Your task to perform on an android device: turn on sleep mode Image 0: 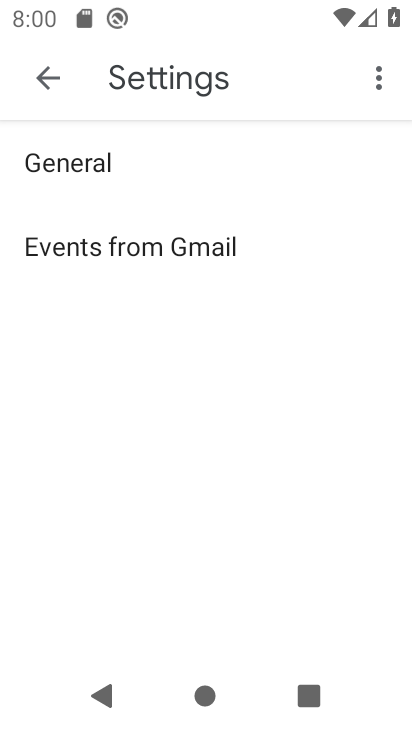
Step 0: press home button
Your task to perform on an android device: turn on sleep mode Image 1: 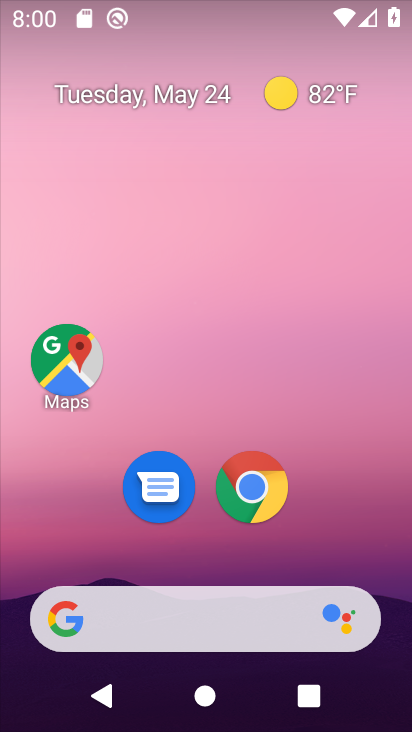
Step 1: drag from (388, 538) to (334, 156)
Your task to perform on an android device: turn on sleep mode Image 2: 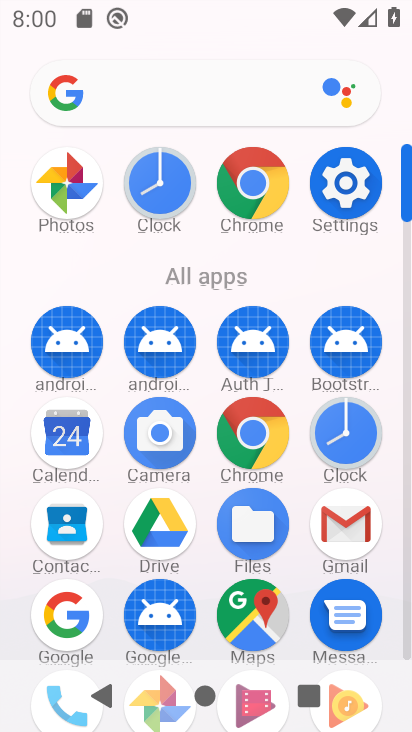
Step 2: click (338, 199)
Your task to perform on an android device: turn on sleep mode Image 3: 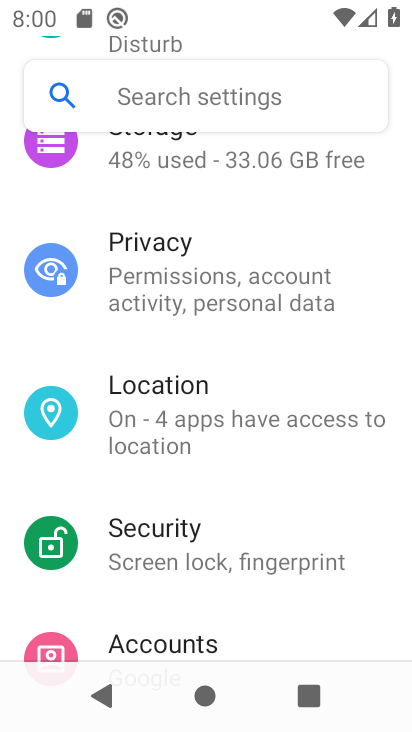
Step 3: click (199, 92)
Your task to perform on an android device: turn on sleep mode Image 4: 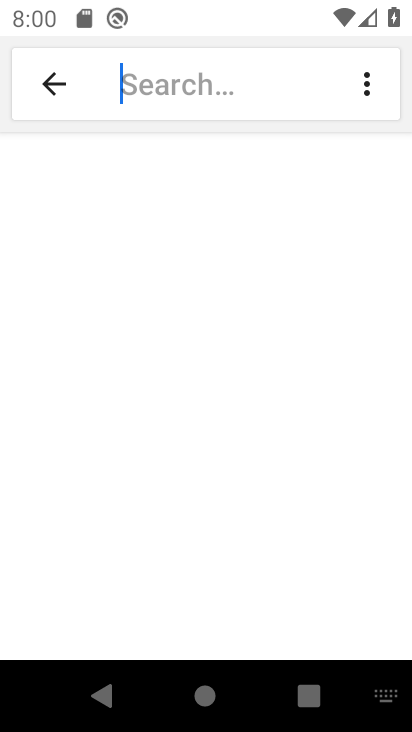
Step 4: type "sleep mode"
Your task to perform on an android device: turn on sleep mode Image 5: 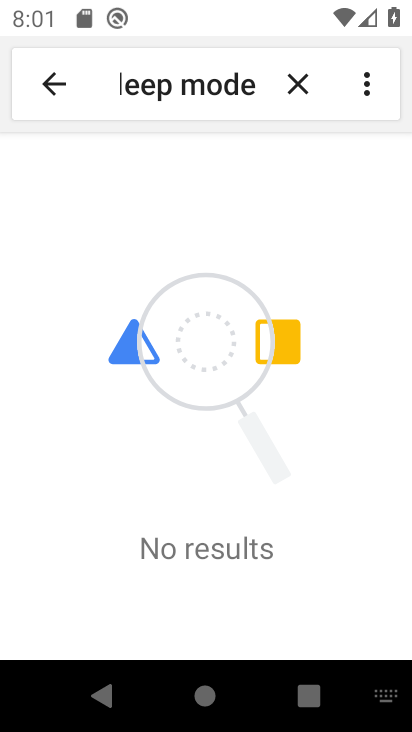
Step 5: task complete